Your task to perform on an android device: Turn off the flashlight Image 0: 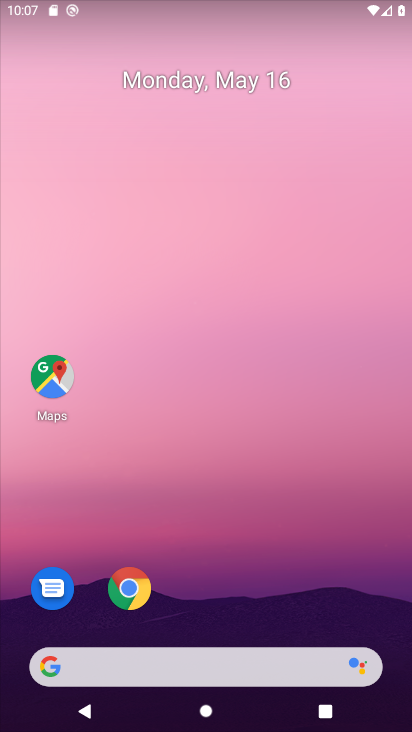
Step 0: press home button
Your task to perform on an android device: Turn off the flashlight Image 1: 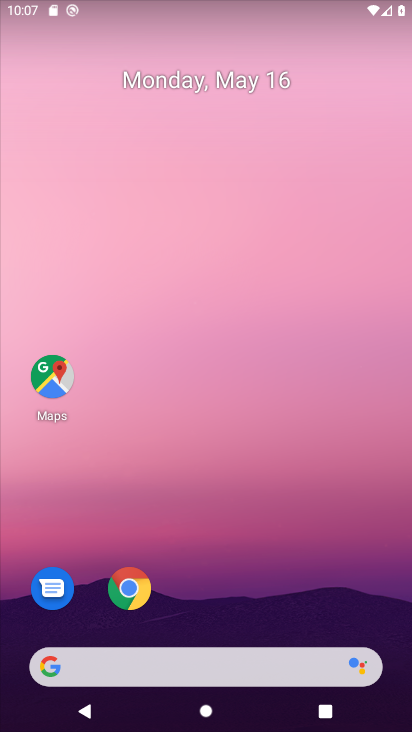
Step 1: drag from (200, 628) to (231, 77)
Your task to perform on an android device: Turn off the flashlight Image 2: 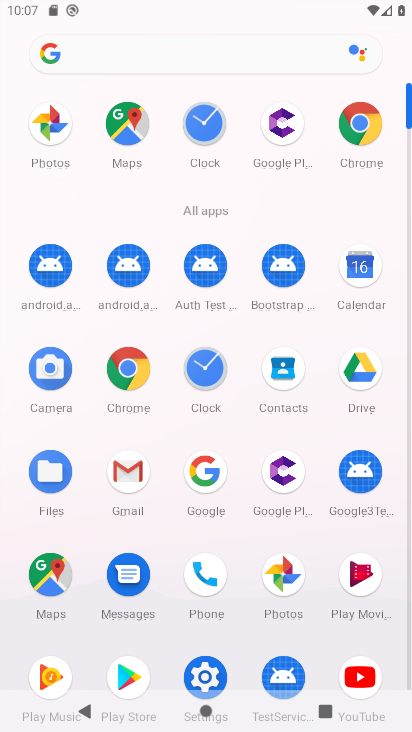
Step 2: click (203, 668)
Your task to perform on an android device: Turn off the flashlight Image 3: 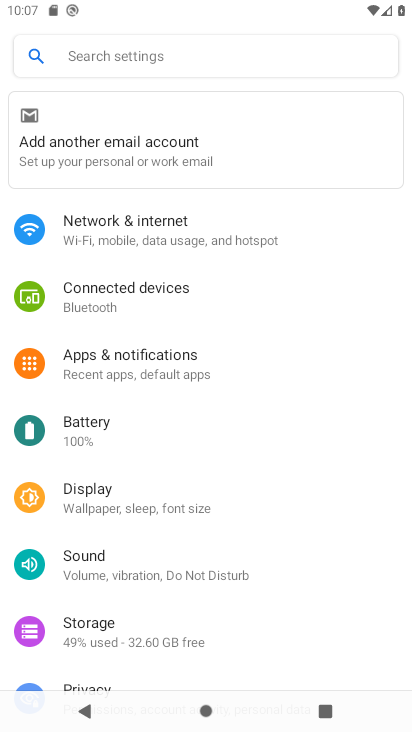
Step 3: click (141, 51)
Your task to perform on an android device: Turn off the flashlight Image 4: 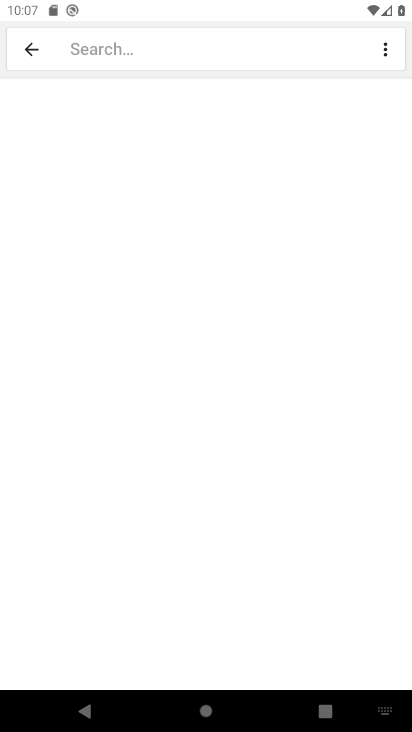
Step 4: type "flashlight"
Your task to perform on an android device: Turn off the flashlight Image 5: 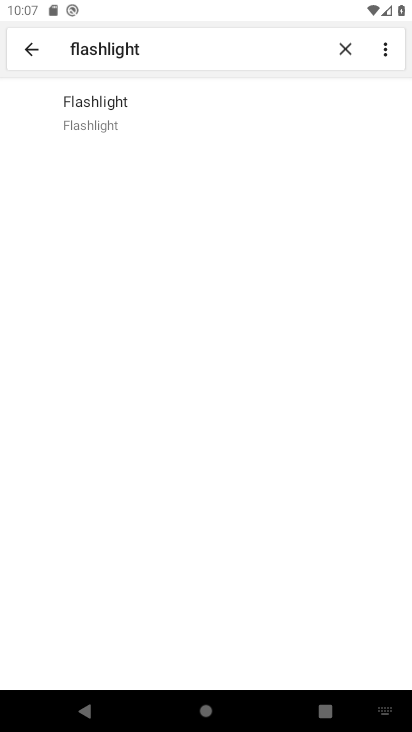
Step 5: click (131, 121)
Your task to perform on an android device: Turn off the flashlight Image 6: 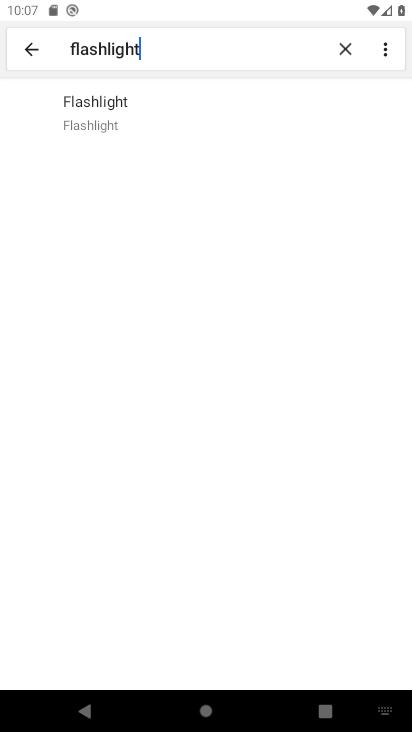
Step 6: click (136, 118)
Your task to perform on an android device: Turn off the flashlight Image 7: 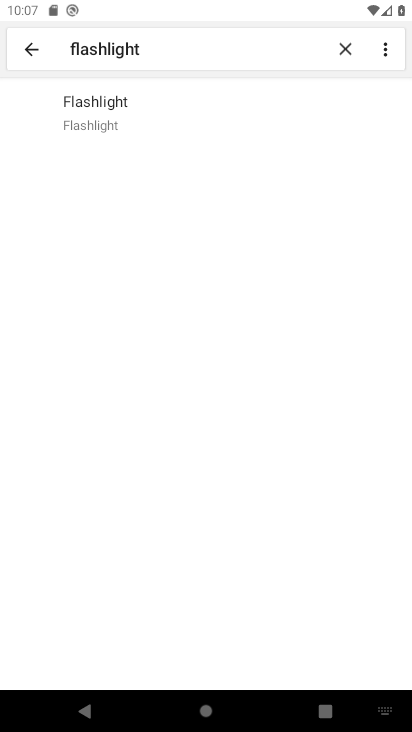
Step 7: task complete